Your task to perform on an android device: toggle notifications settings in the gmail app Image 0: 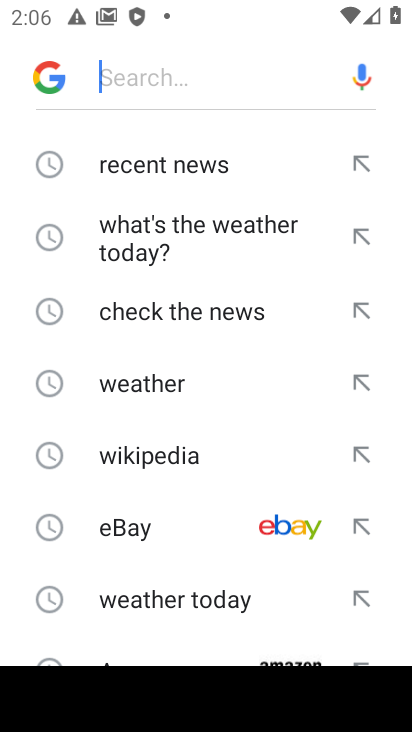
Step 0: press home button
Your task to perform on an android device: toggle notifications settings in the gmail app Image 1: 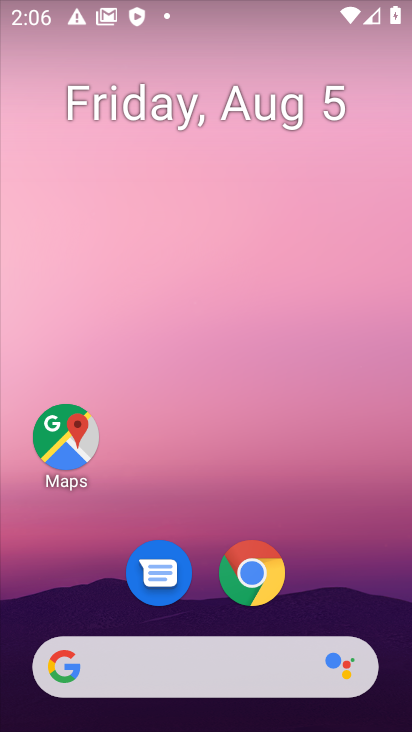
Step 1: drag from (360, 609) to (264, 54)
Your task to perform on an android device: toggle notifications settings in the gmail app Image 2: 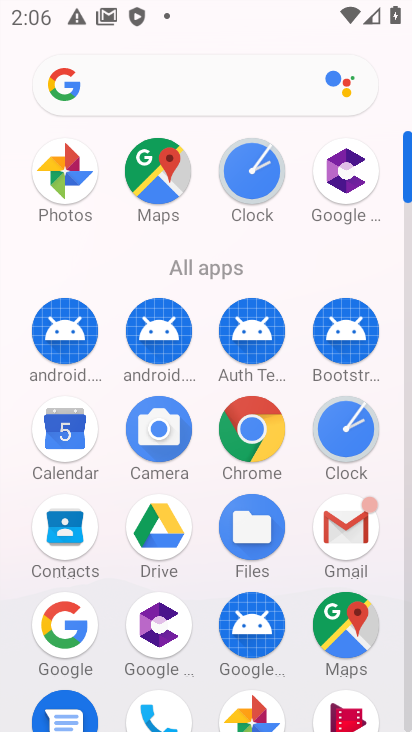
Step 2: click (406, 720)
Your task to perform on an android device: toggle notifications settings in the gmail app Image 3: 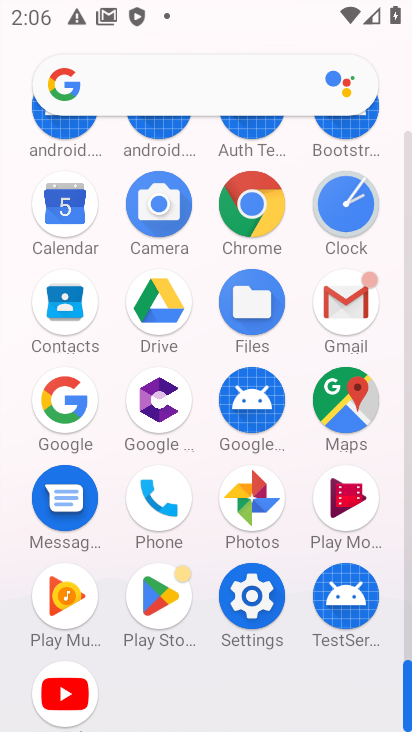
Step 3: click (356, 294)
Your task to perform on an android device: toggle notifications settings in the gmail app Image 4: 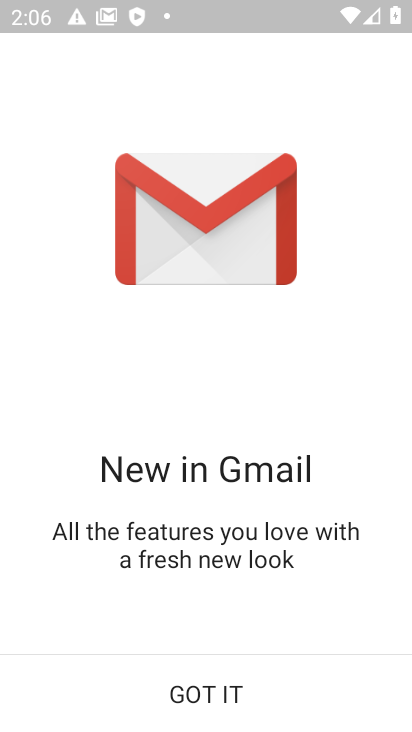
Step 4: click (240, 700)
Your task to perform on an android device: toggle notifications settings in the gmail app Image 5: 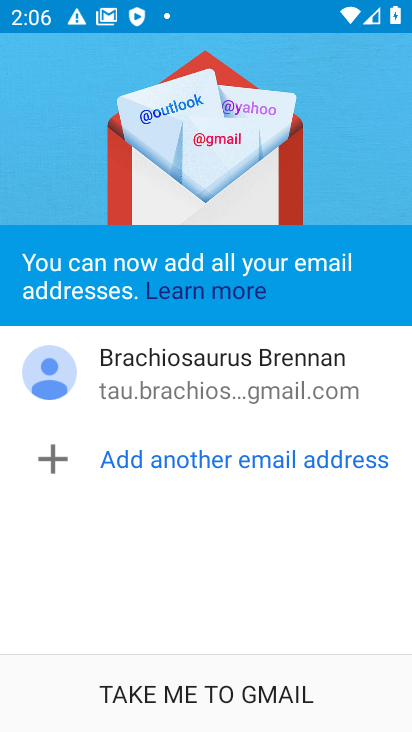
Step 5: click (255, 699)
Your task to perform on an android device: toggle notifications settings in the gmail app Image 6: 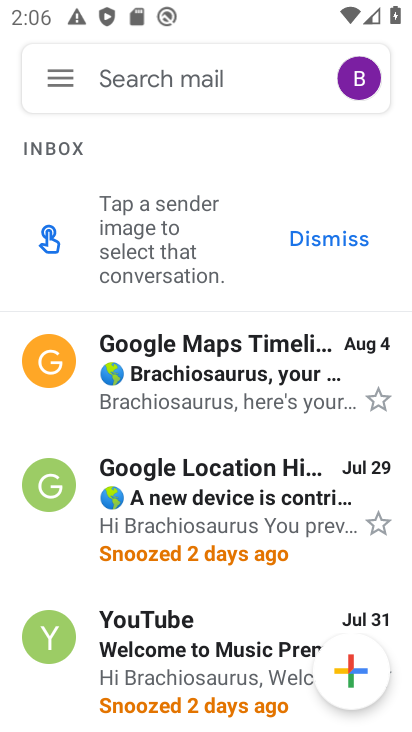
Step 6: click (71, 81)
Your task to perform on an android device: toggle notifications settings in the gmail app Image 7: 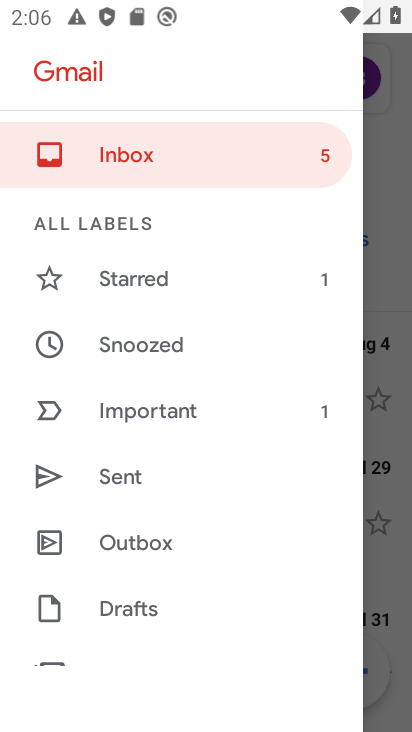
Step 7: drag from (207, 623) to (203, 177)
Your task to perform on an android device: toggle notifications settings in the gmail app Image 8: 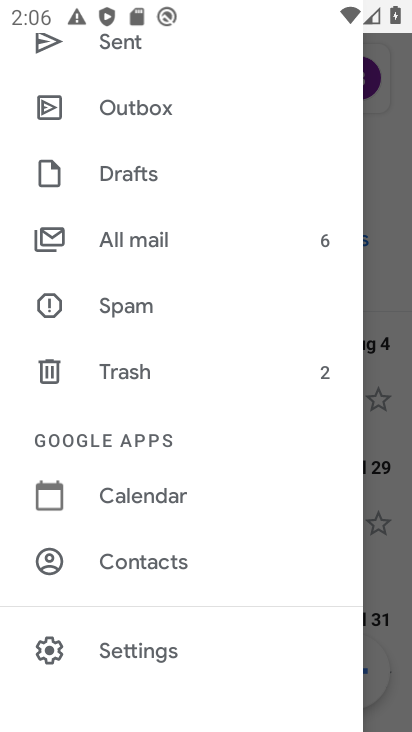
Step 8: drag from (210, 565) to (232, 89)
Your task to perform on an android device: toggle notifications settings in the gmail app Image 9: 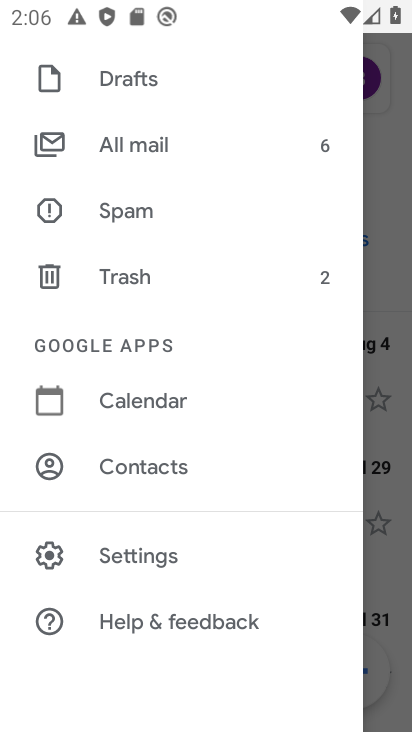
Step 9: click (222, 556)
Your task to perform on an android device: toggle notifications settings in the gmail app Image 10: 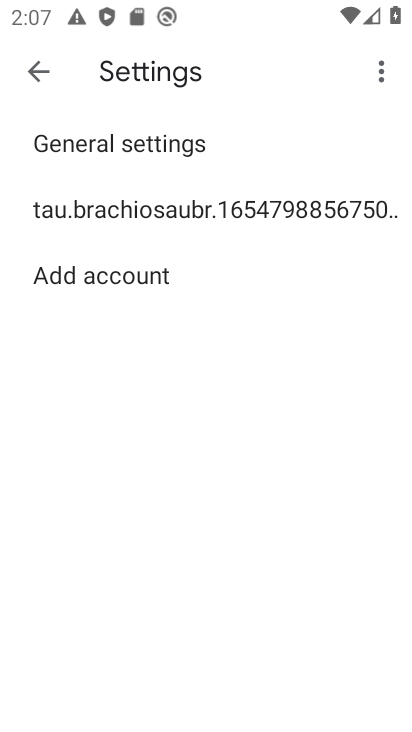
Step 10: click (251, 227)
Your task to perform on an android device: toggle notifications settings in the gmail app Image 11: 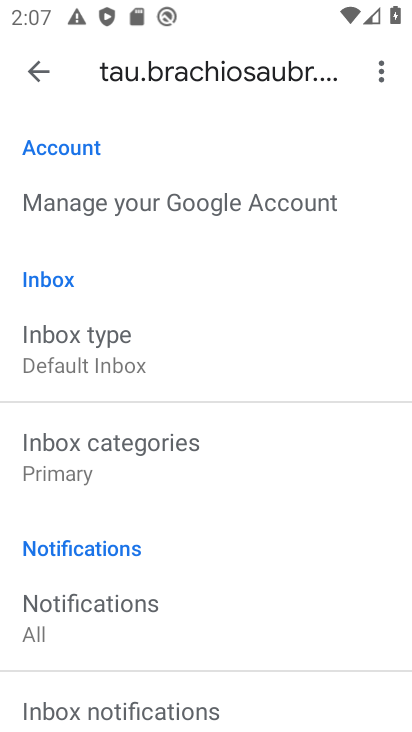
Step 11: drag from (259, 668) to (253, 22)
Your task to perform on an android device: toggle notifications settings in the gmail app Image 12: 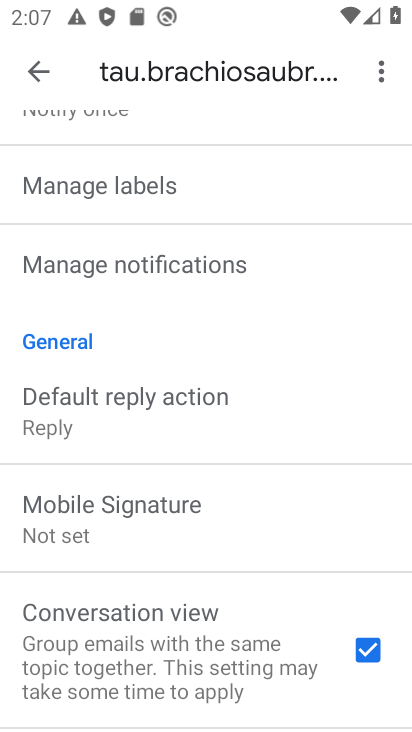
Step 12: click (261, 274)
Your task to perform on an android device: toggle notifications settings in the gmail app Image 13: 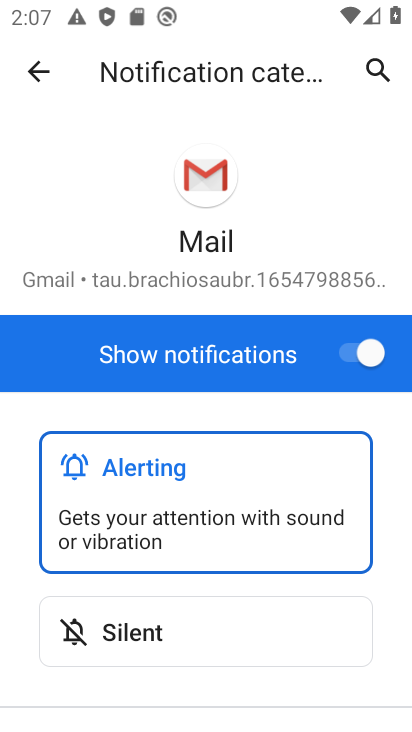
Step 13: drag from (292, 340) to (276, 229)
Your task to perform on an android device: toggle notifications settings in the gmail app Image 14: 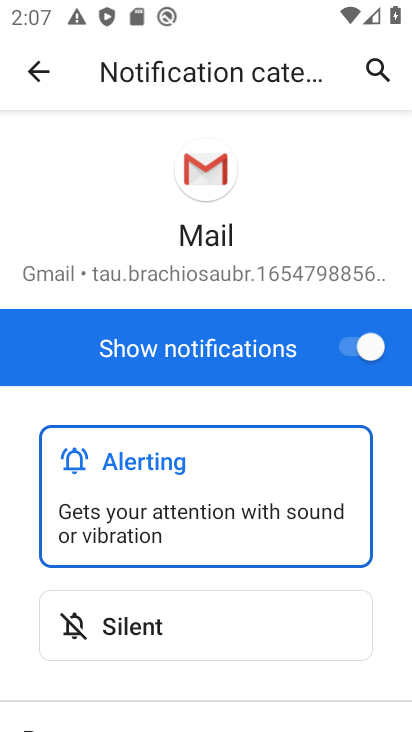
Step 14: click (341, 644)
Your task to perform on an android device: toggle notifications settings in the gmail app Image 15: 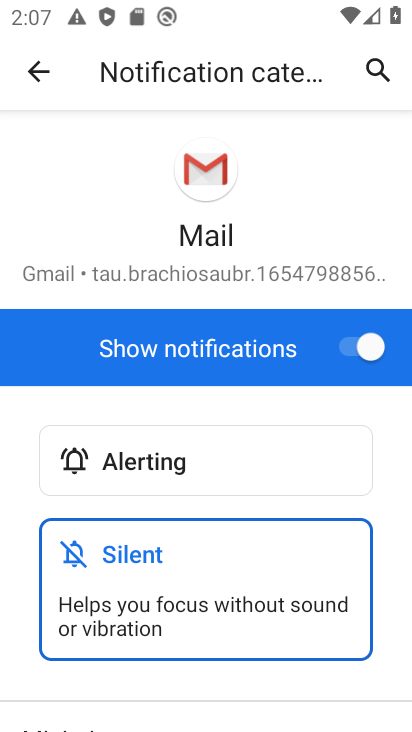
Step 15: click (217, 627)
Your task to perform on an android device: toggle notifications settings in the gmail app Image 16: 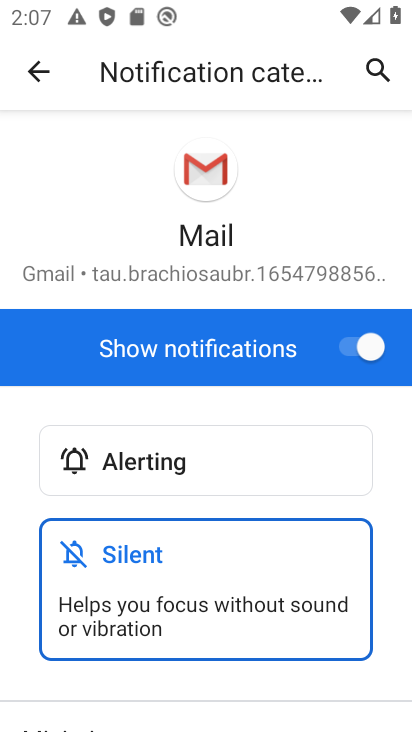
Step 16: drag from (191, 620) to (160, 185)
Your task to perform on an android device: toggle notifications settings in the gmail app Image 17: 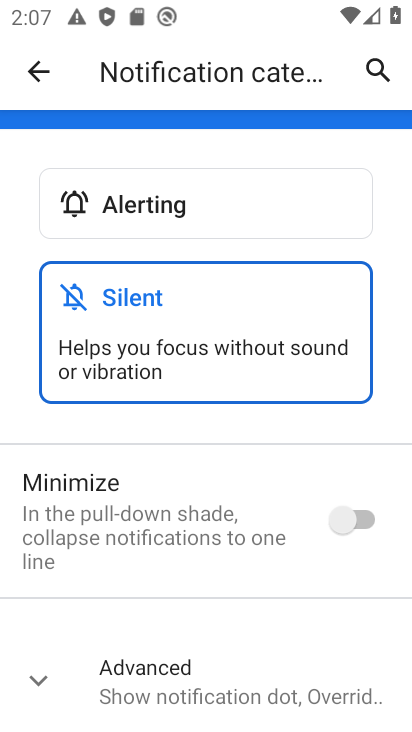
Step 17: click (351, 495)
Your task to perform on an android device: toggle notifications settings in the gmail app Image 18: 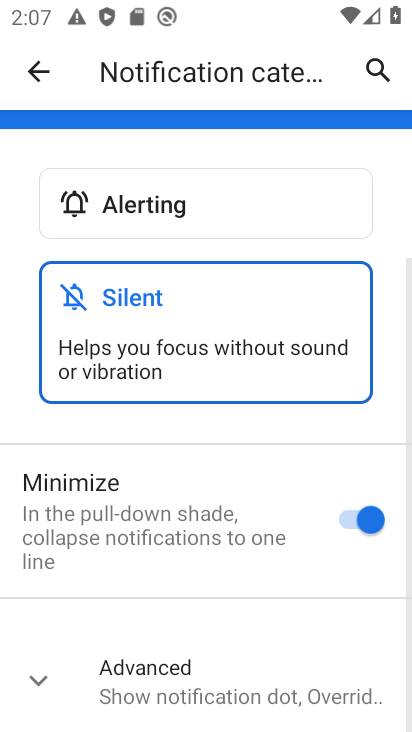
Step 18: task complete